Your task to perform on an android device: What's the news this evening? Image 0: 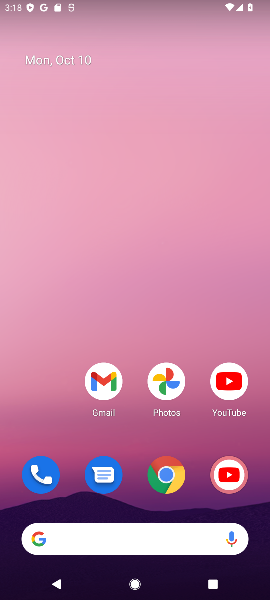
Step 0: drag from (142, 514) to (142, 228)
Your task to perform on an android device: What's the news this evening? Image 1: 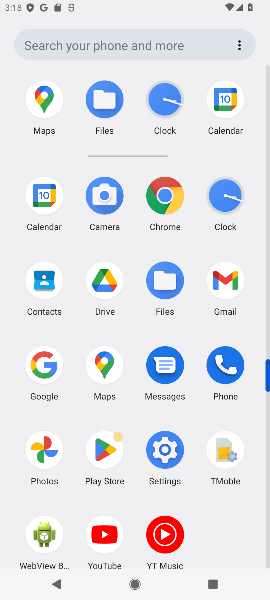
Step 1: click (48, 367)
Your task to perform on an android device: What's the news this evening? Image 2: 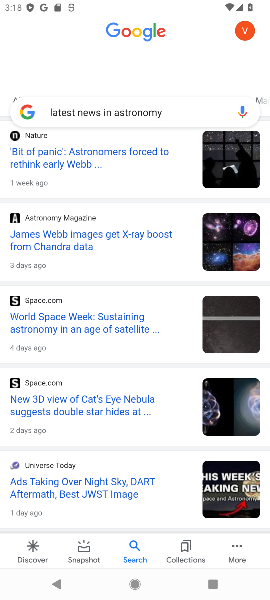
Step 2: click (184, 110)
Your task to perform on an android device: What's the news this evening? Image 3: 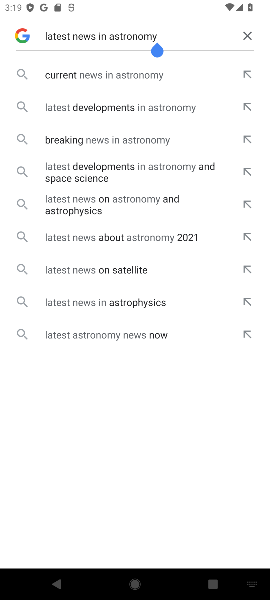
Step 3: click (246, 42)
Your task to perform on an android device: What's the news this evening? Image 4: 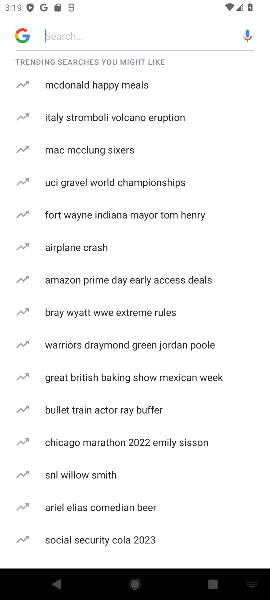
Step 4: type "news this evening"
Your task to perform on an android device: What's the news this evening? Image 5: 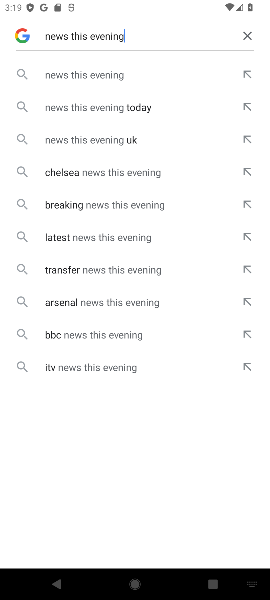
Step 5: click (138, 74)
Your task to perform on an android device: What's the news this evening? Image 6: 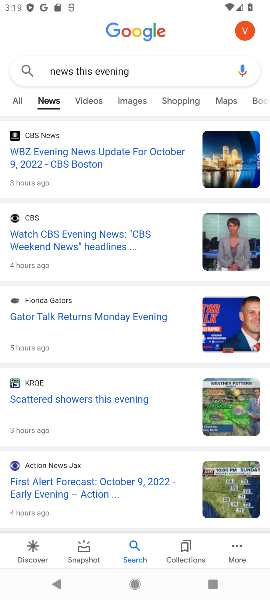
Step 6: task complete